Your task to perform on an android device: Set the phone to "Do not disturb". Image 0: 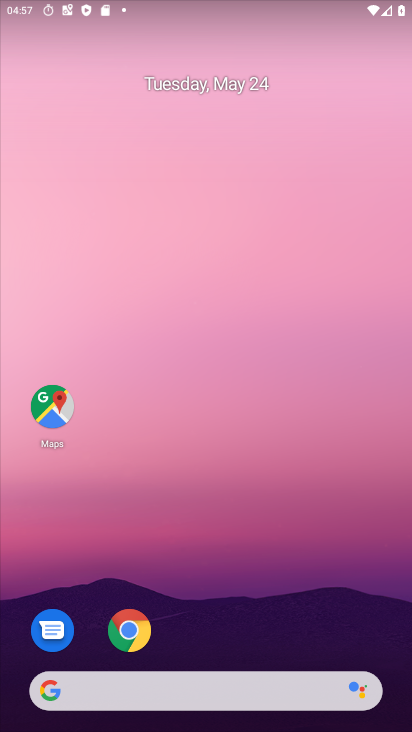
Step 0: click (179, 633)
Your task to perform on an android device: Set the phone to "Do not disturb". Image 1: 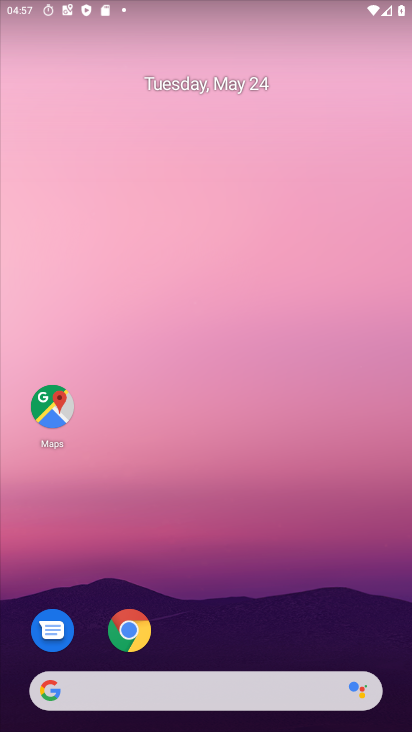
Step 1: drag from (147, 12) to (197, 501)
Your task to perform on an android device: Set the phone to "Do not disturb". Image 2: 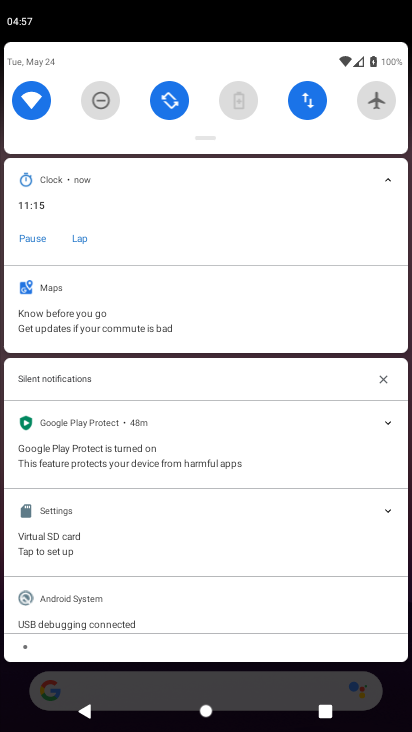
Step 2: click (89, 108)
Your task to perform on an android device: Set the phone to "Do not disturb". Image 3: 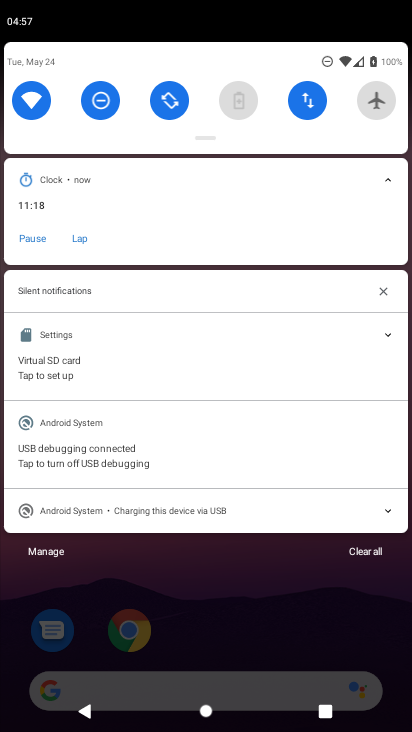
Step 3: task complete